Your task to perform on an android device: Add usb-c to the cart on walmart, then select checkout. Image 0: 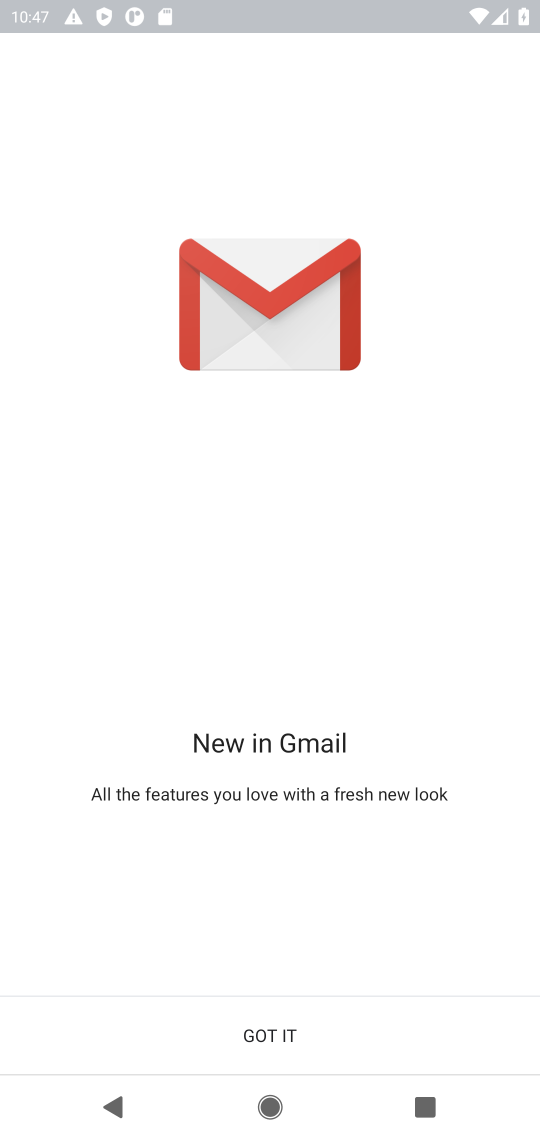
Step 0: press home button
Your task to perform on an android device: Add usb-c to the cart on walmart, then select checkout. Image 1: 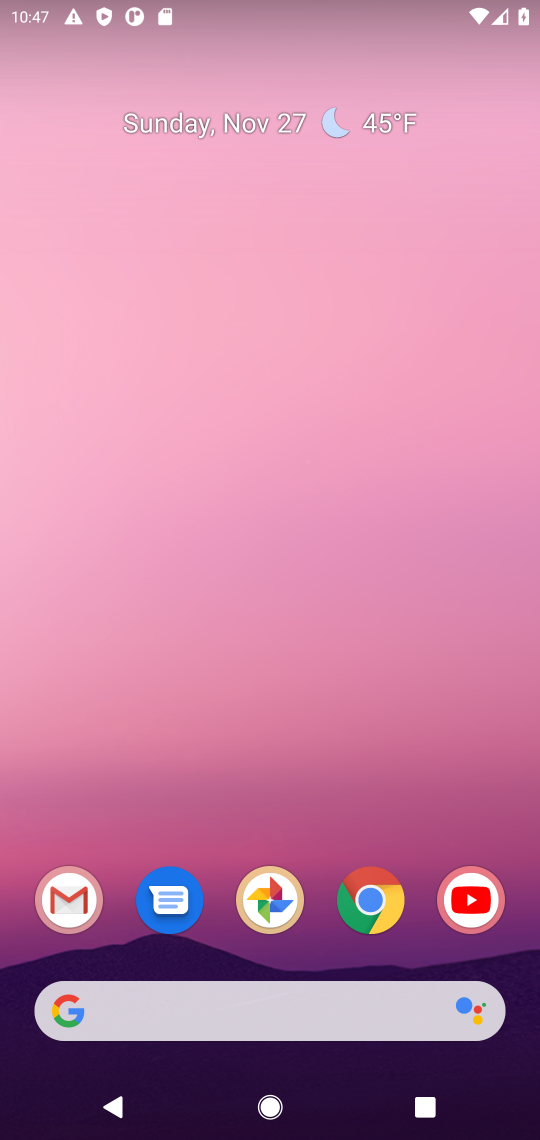
Step 1: click (377, 897)
Your task to perform on an android device: Add usb-c to the cart on walmart, then select checkout. Image 2: 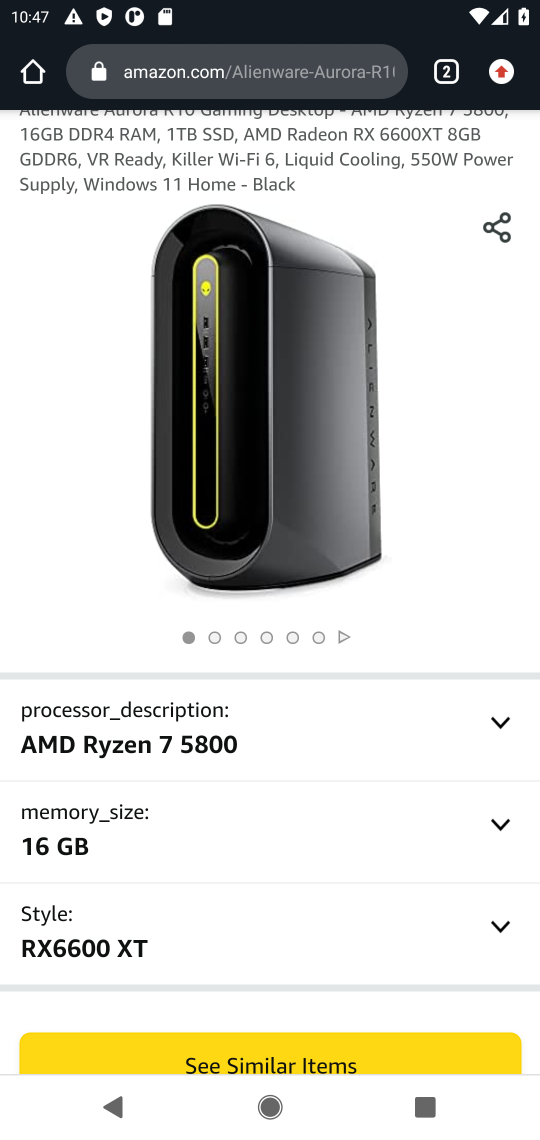
Step 2: click (231, 73)
Your task to perform on an android device: Add usb-c to the cart on walmart, then select checkout. Image 3: 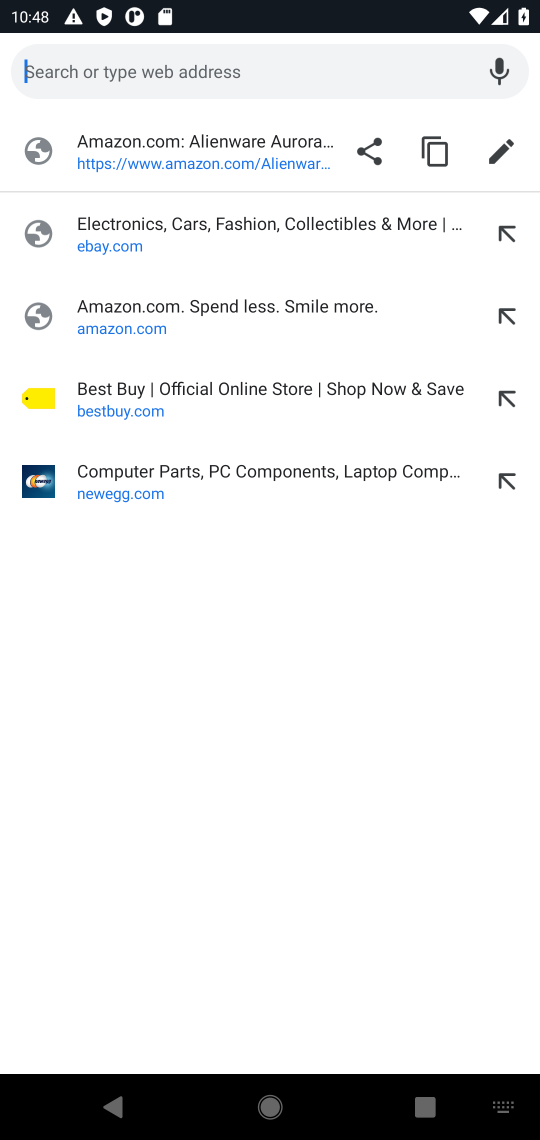
Step 3: type "walmart.com"
Your task to perform on an android device: Add usb-c to the cart on walmart, then select checkout. Image 4: 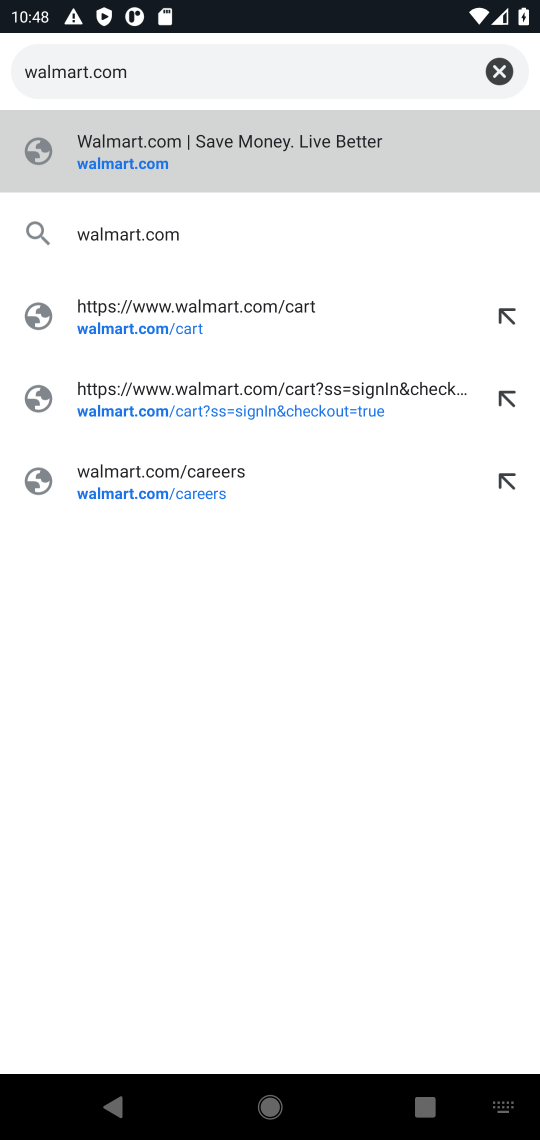
Step 4: click (157, 163)
Your task to perform on an android device: Add usb-c to the cart on walmart, then select checkout. Image 5: 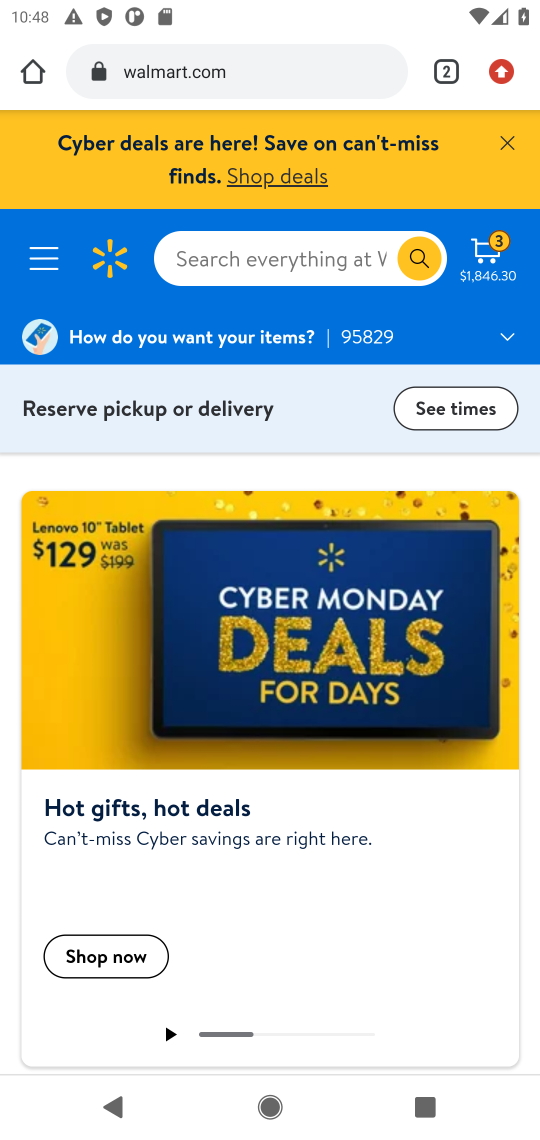
Step 5: click (217, 255)
Your task to perform on an android device: Add usb-c to the cart on walmart, then select checkout. Image 6: 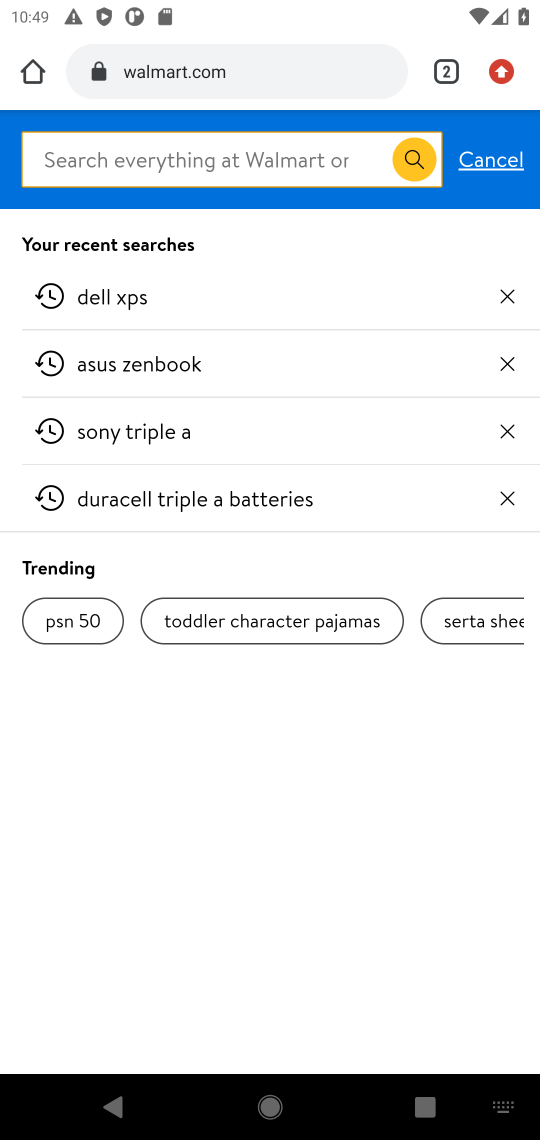
Step 6: type "usb-c"
Your task to perform on an android device: Add usb-c to the cart on walmart, then select checkout. Image 7: 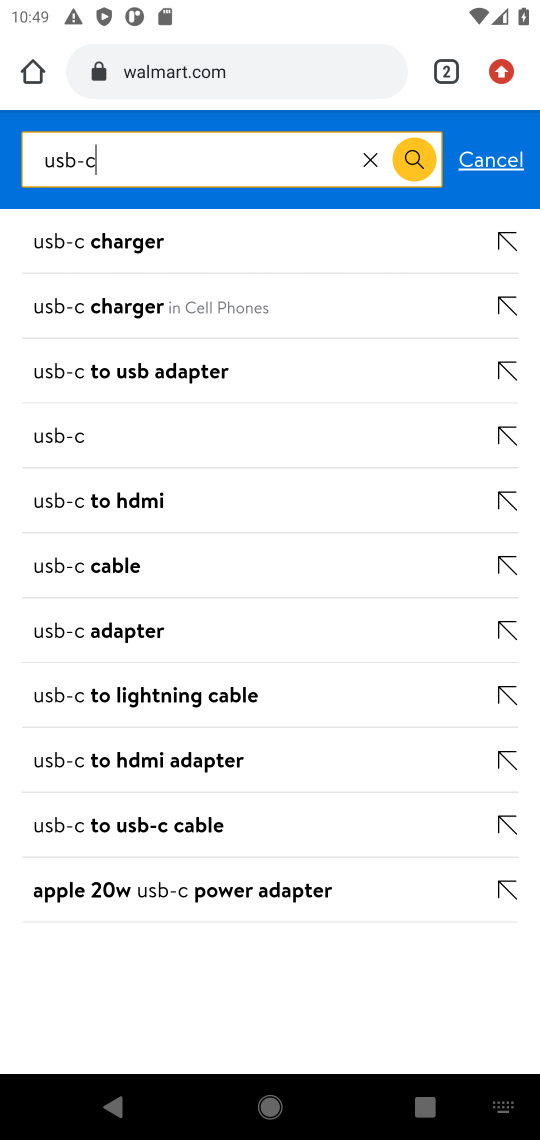
Step 7: click (109, 242)
Your task to perform on an android device: Add usb-c to the cart on walmart, then select checkout. Image 8: 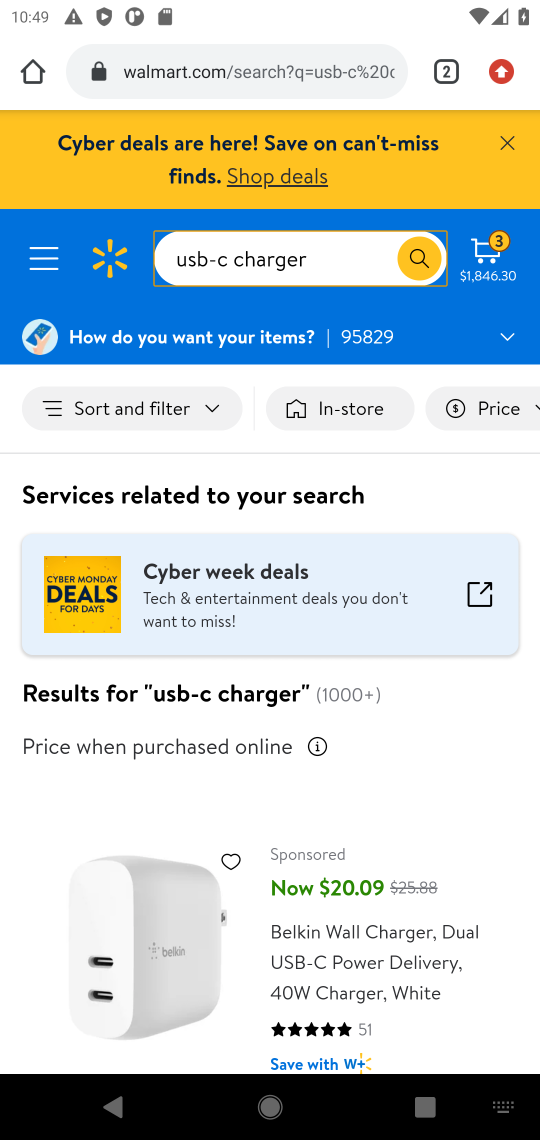
Step 8: drag from (186, 622) to (232, 272)
Your task to perform on an android device: Add usb-c to the cart on walmart, then select checkout. Image 9: 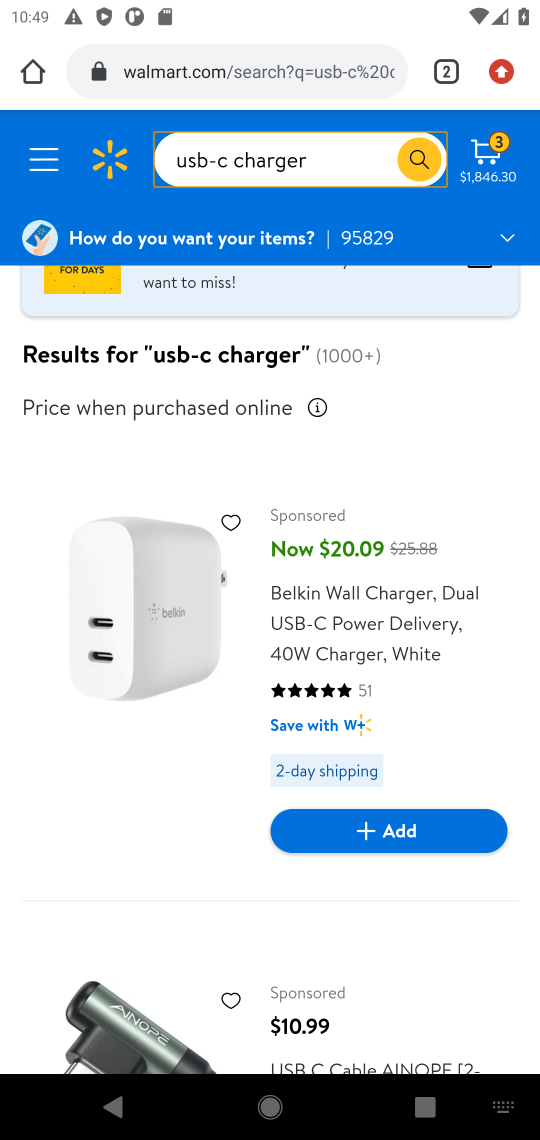
Step 9: drag from (194, 722) to (236, 498)
Your task to perform on an android device: Add usb-c to the cart on walmart, then select checkout. Image 10: 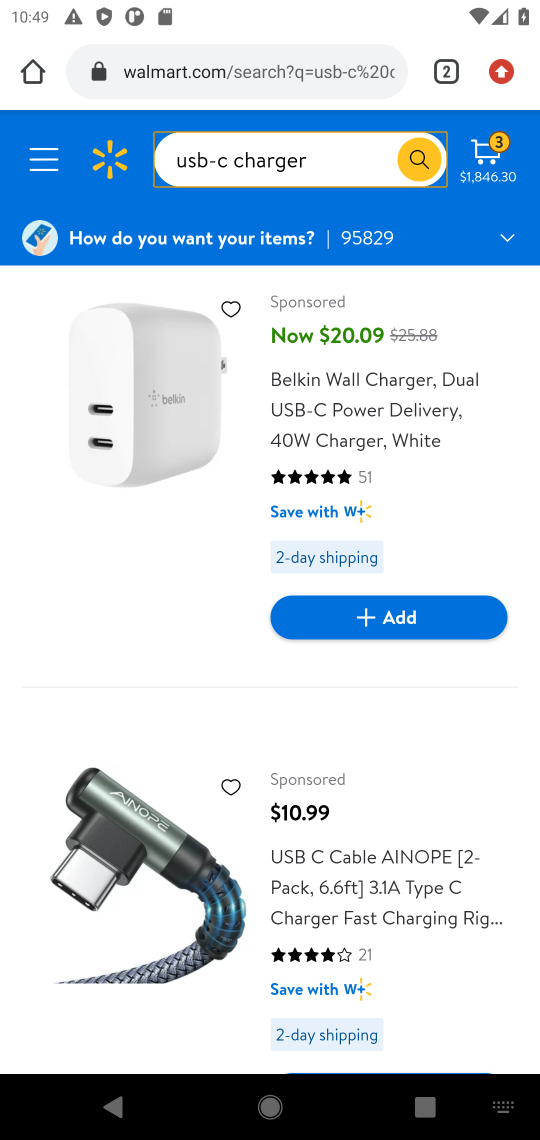
Step 10: click (398, 617)
Your task to perform on an android device: Add usb-c to the cart on walmart, then select checkout. Image 11: 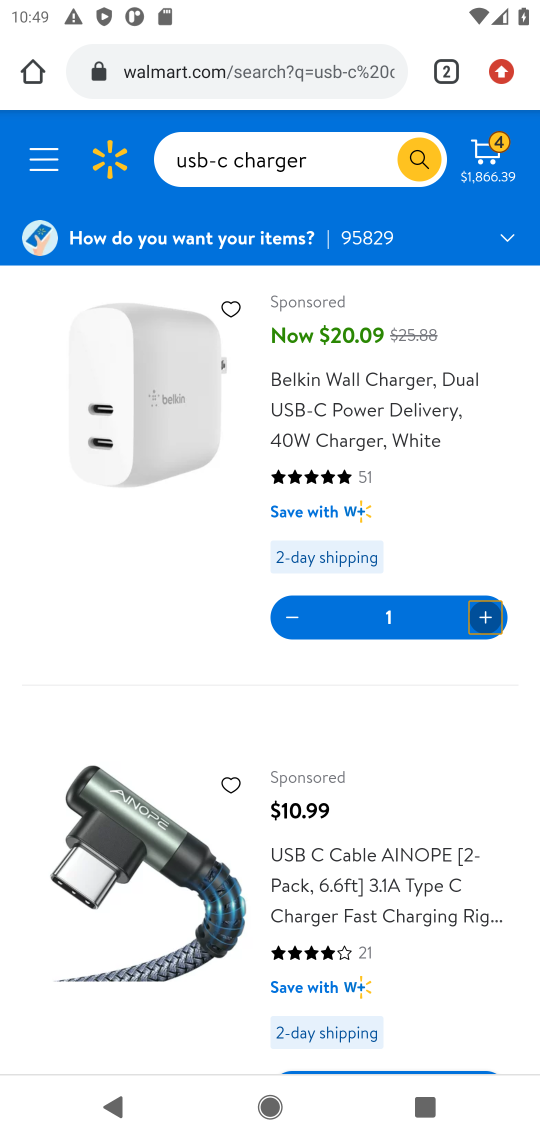
Step 11: click (483, 168)
Your task to perform on an android device: Add usb-c to the cart on walmart, then select checkout. Image 12: 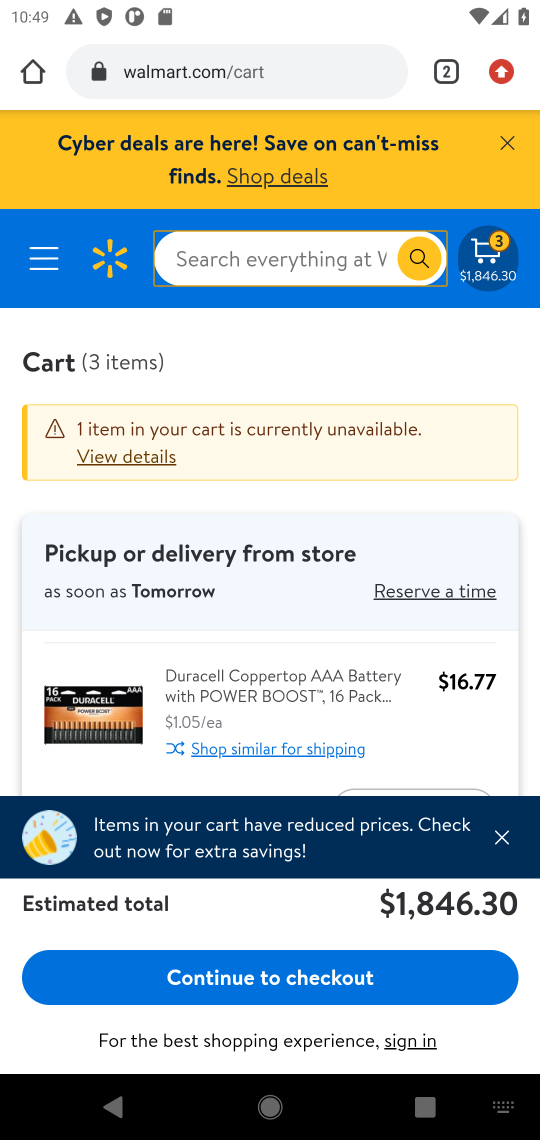
Step 12: click (252, 977)
Your task to perform on an android device: Add usb-c to the cart on walmart, then select checkout. Image 13: 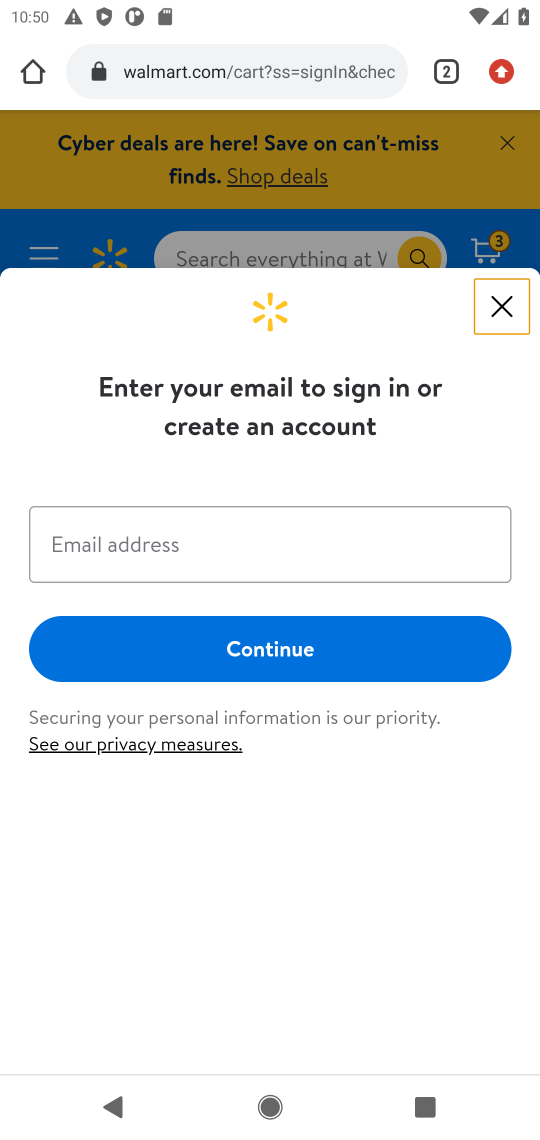
Step 13: click (500, 308)
Your task to perform on an android device: Add usb-c to the cart on walmart, then select checkout. Image 14: 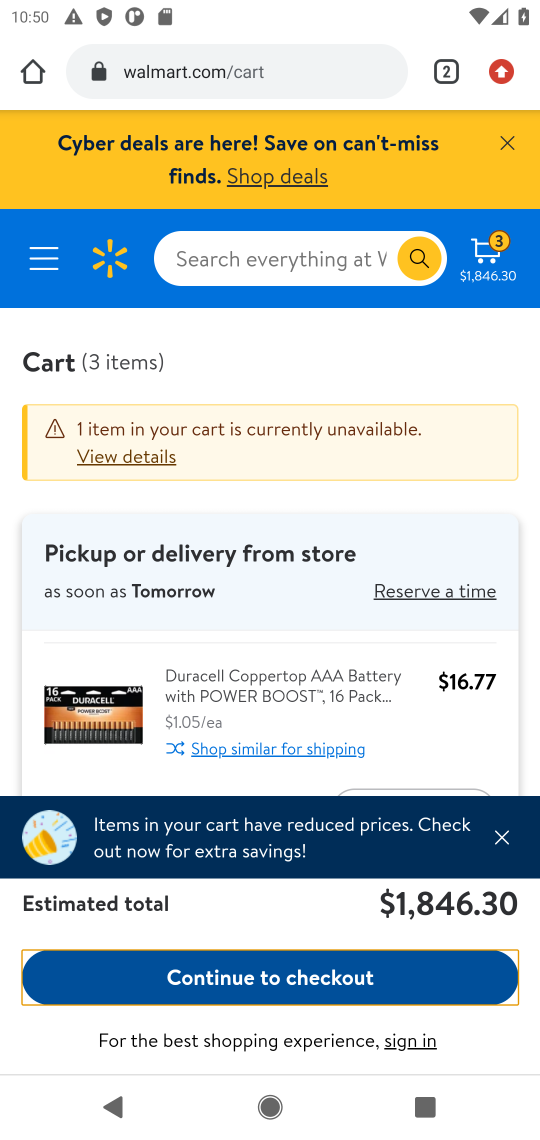
Step 14: drag from (294, 737) to (311, 236)
Your task to perform on an android device: Add usb-c to the cart on walmart, then select checkout. Image 15: 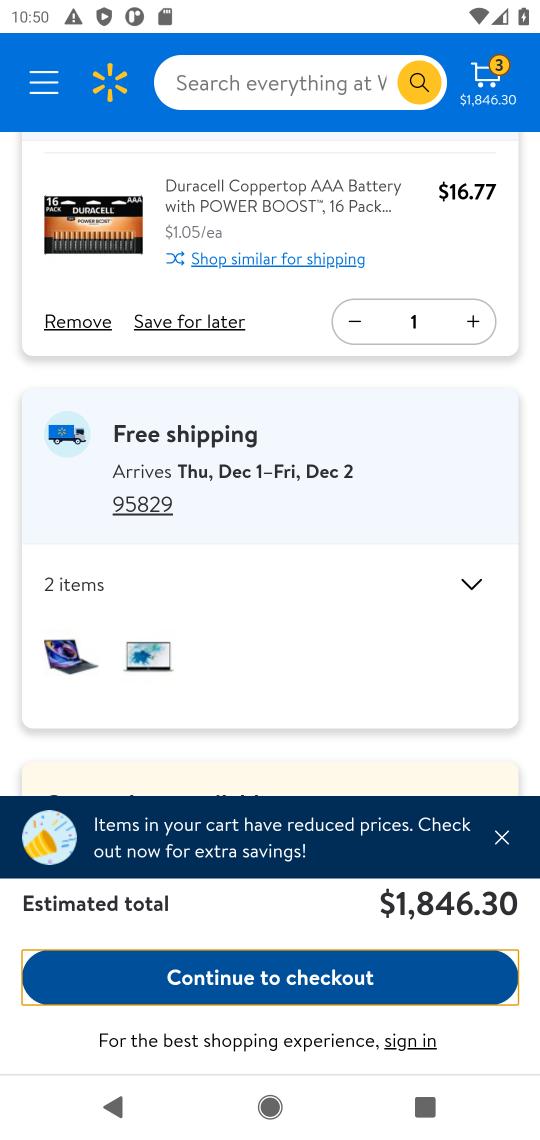
Step 15: click (295, 982)
Your task to perform on an android device: Add usb-c to the cart on walmart, then select checkout. Image 16: 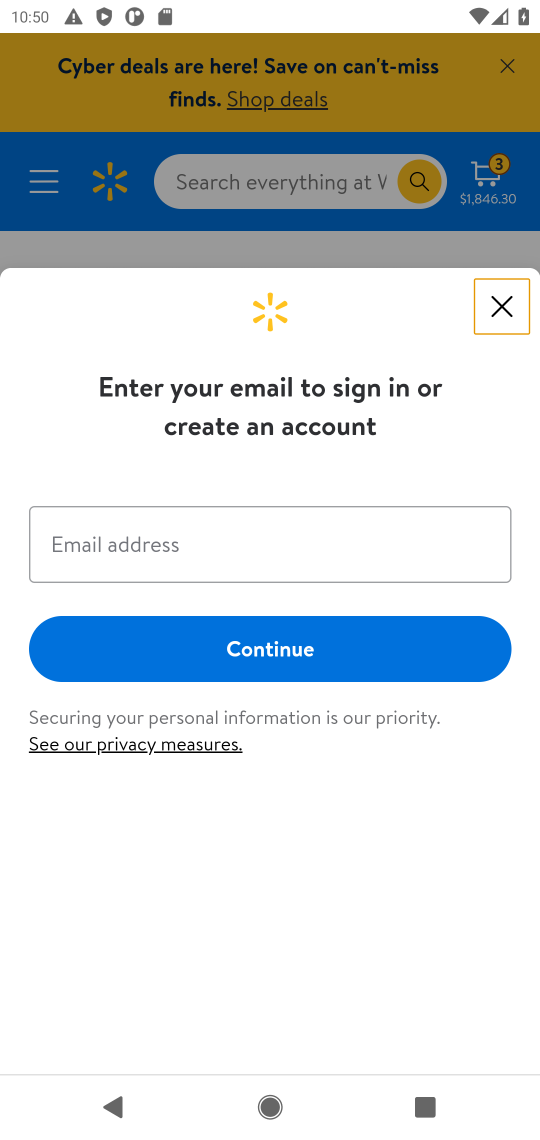
Step 16: task complete